Your task to perform on an android device: Open Amazon Image 0: 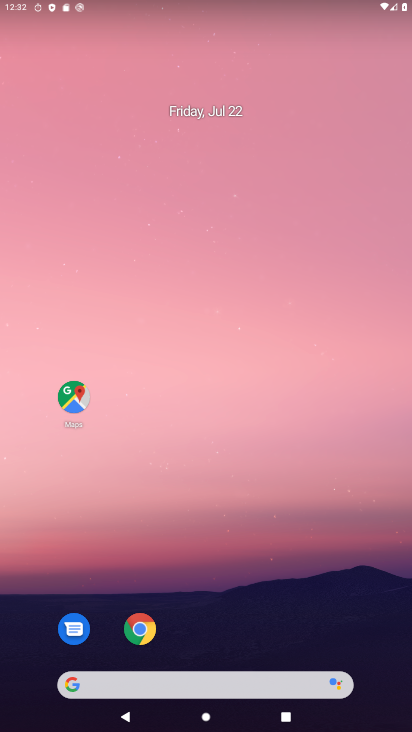
Step 0: drag from (198, 631) to (213, 85)
Your task to perform on an android device: Open Amazon Image 1: 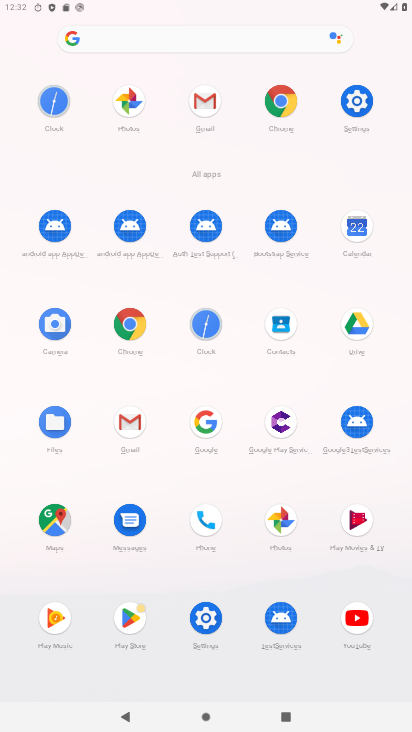
Step 1: click (279, 104)
Your task to perform on an android device: Open Amazon Image 2: 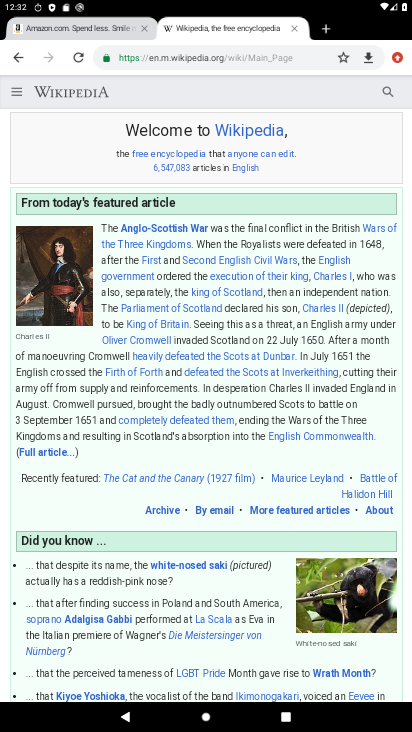
Step 2: click (79, 29)
Your task to perform on an android device: Open Amazon Image 3: 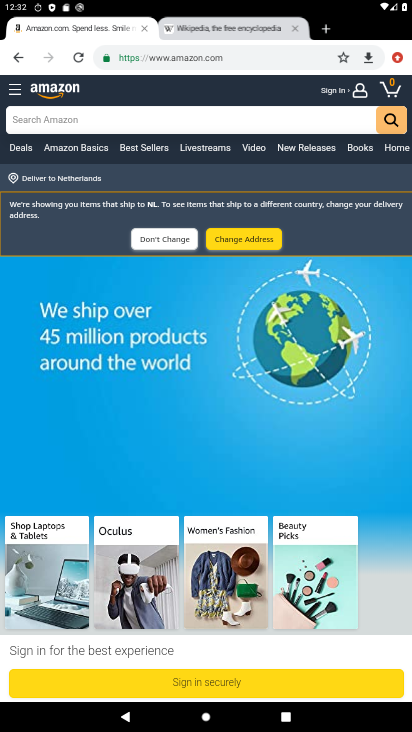
Step 3: task complete